Your task to perform on an android device: Go to Yahoo.com Image 0: 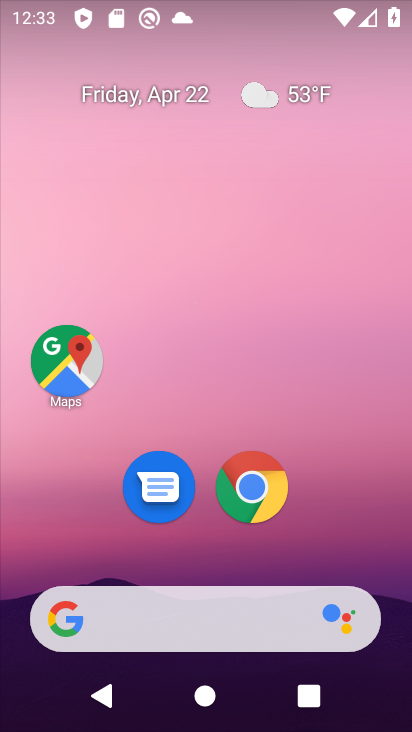
Step 0: click (255, 495)
Your task to perform on an android device: Go to Yahoo.com Image 1: 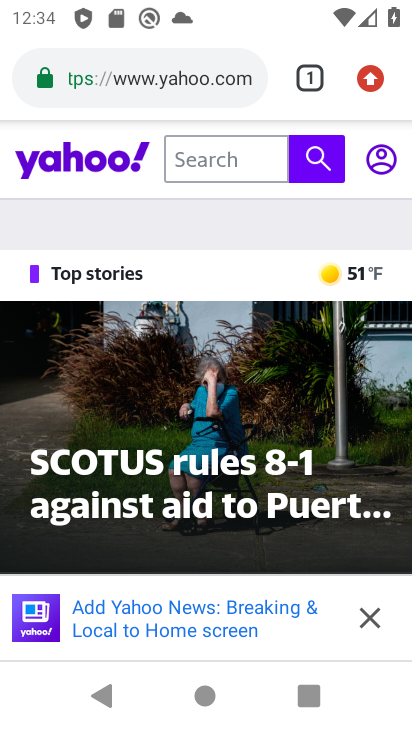
Step 1: task complete